Your task to perform on an android device: Is it going to rain this weekend? Image 0: 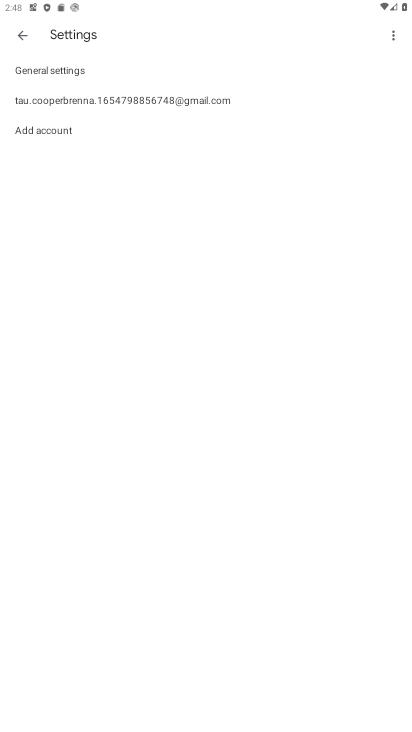
Step 0: click (140, 656)
Your task to perform on an android device: Is it going to rain this weekend? Image 1: 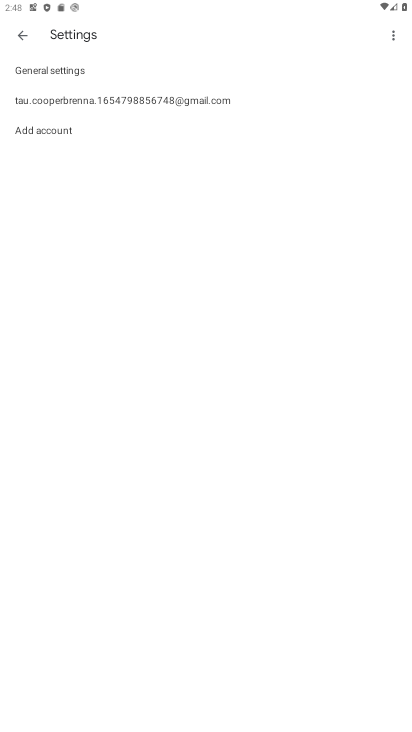
Step 1: press home button
Your task to perform on an android device: Is it going to rain this weekend? Image 2: 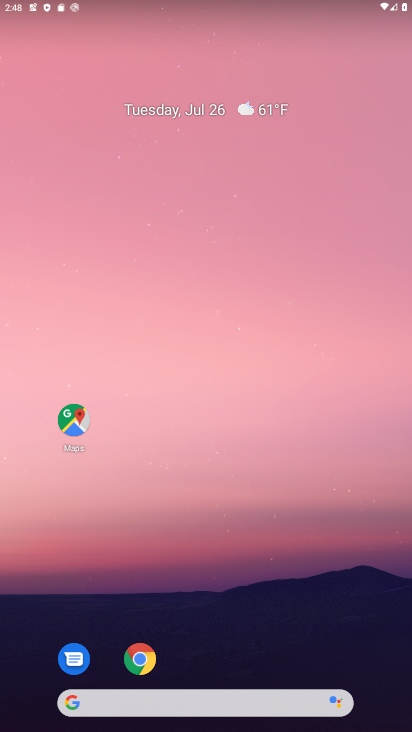
Step 2: drag from (183, 586) to (195, 68)
Your task to perform on an android device: Is it going to rain this weekend? Image 3: 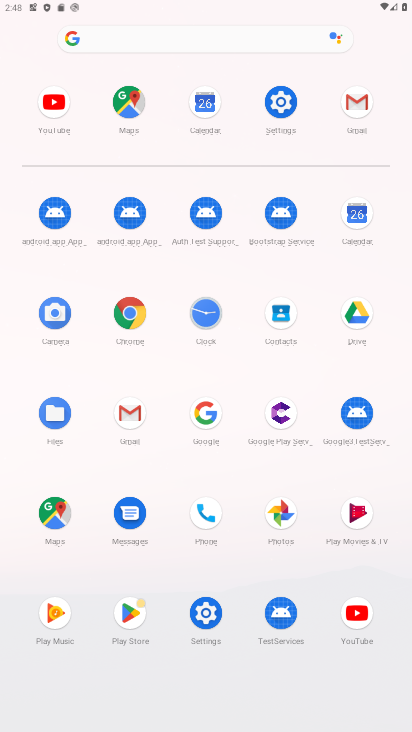
Step 3: click (367, 235)
Your task to perform on an android device: Is it going to rain this weekend? Image 4: 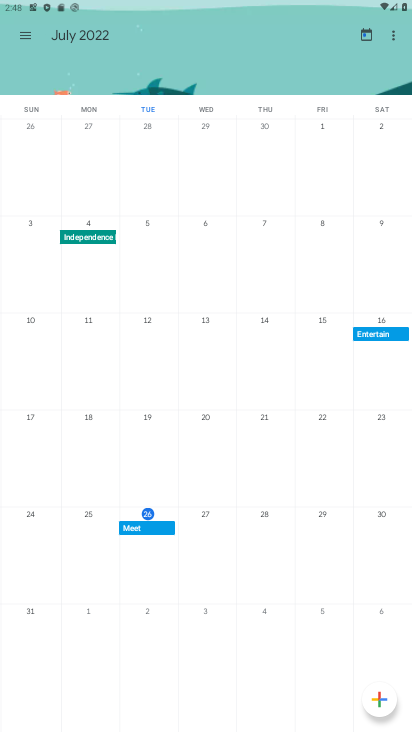
Step 4: click (57, 37)
Your task to perform on an android device: Is it going to rain this weekend? Image 5: 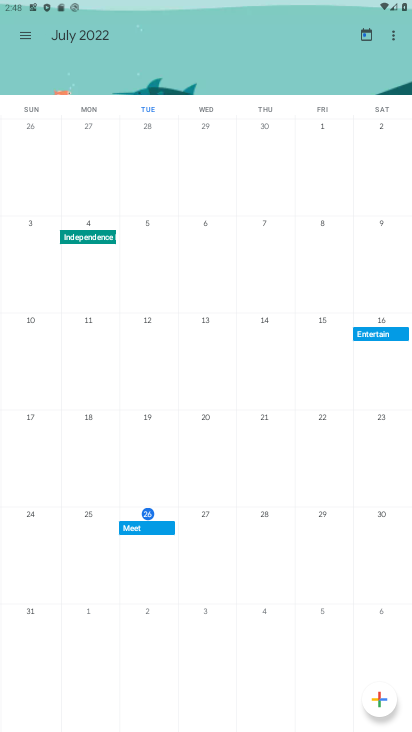
Step 5: click (18, 36)
Your task to perform on an android device: Is it going to rain this weekend? Image 6: 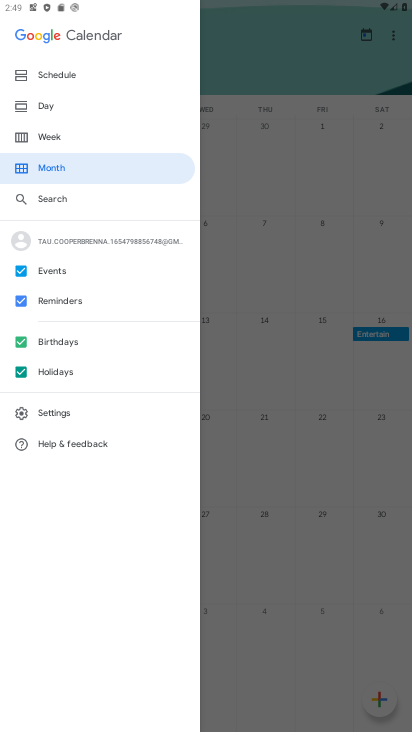
Step 6: click (55, 138)
Your task to perform on an android device: Is it going to rain this weekend? Image 7: 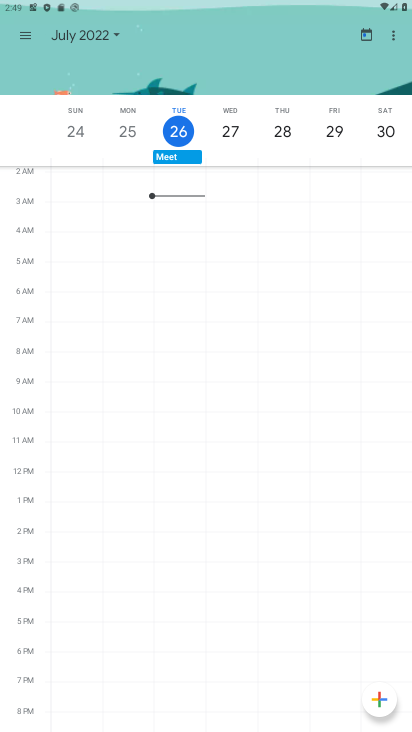
Step 7: task complete